Your task to perform on an android device: Open the stopwatch Image 0: 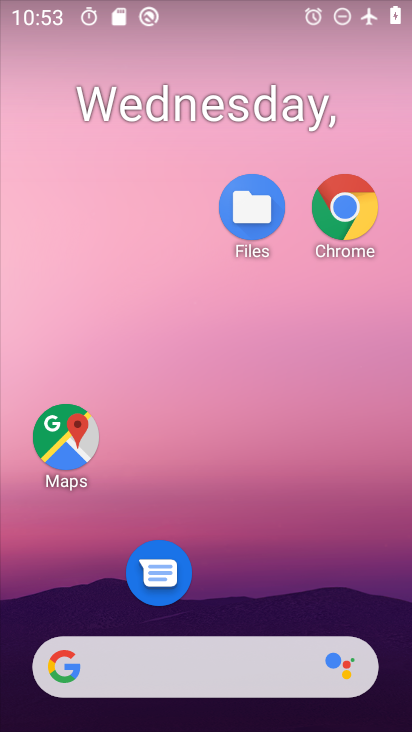
Step 0: press home button
Your task to perform on an android device: Open the stopwatch Image 1: 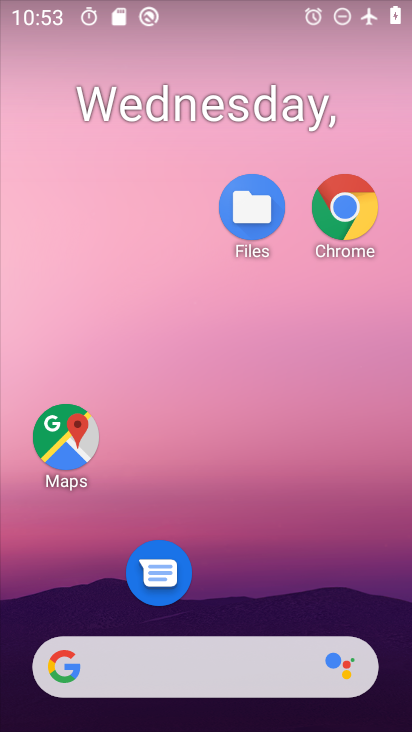
Step 1: drag from (234, 670) to (284, 146)
Your task to perform on an android device: Open the stopwatch Image 2: 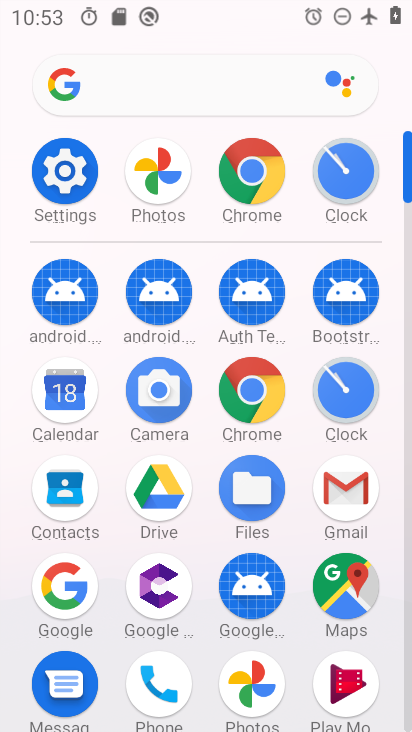
Step 2: click (365, 409)
Your task to perform on an android device: Open the stopwatch Image 3: 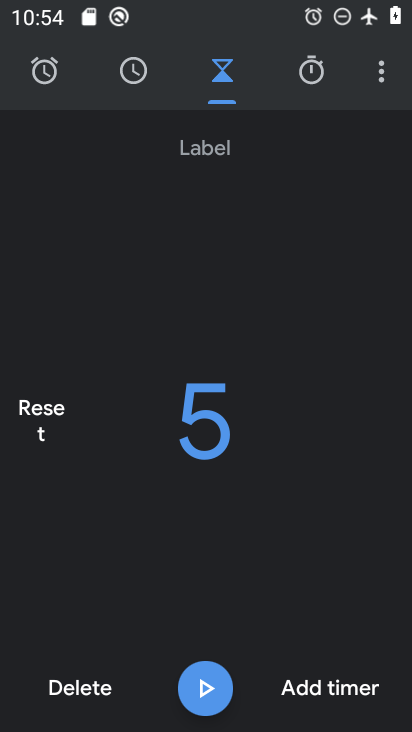
Step 3: click (312, 92)
Your task to perform on an android device: Open the stopwatch Image 4: 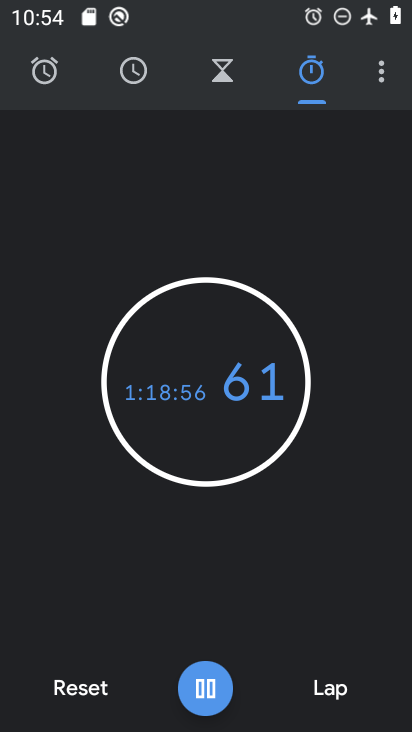
Step 4: task complete